Your task to perform on an android device: toggle improve location accuracy Image 0: 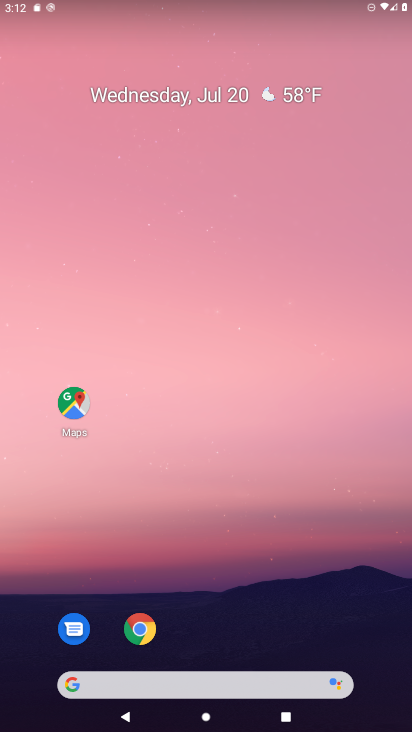
Step 0: drag from (203, 587) to (269, 8)
Your task to perform on an android device: toggle improve location accuracy Image 1: 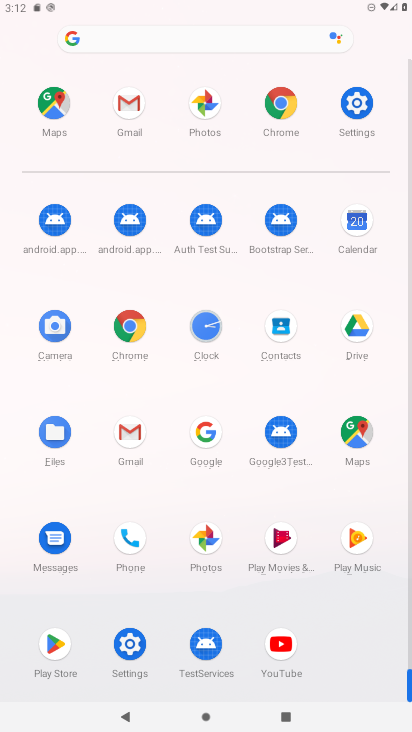
Step 1: click (121, 638)
Your task to perform on an android device: toggle improve location accuracy Image 2: 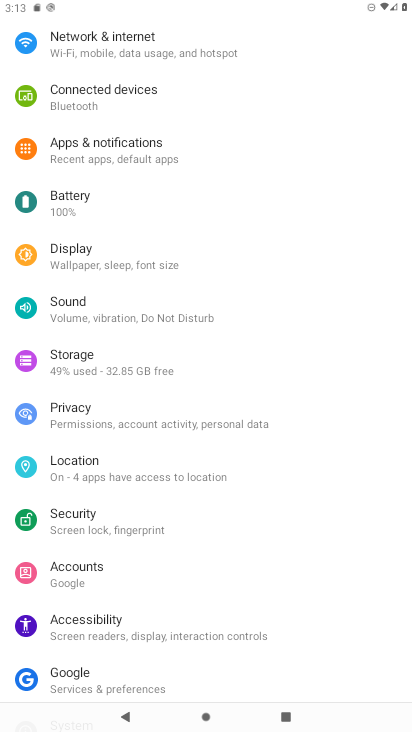
Step 2: click (106, 456)
Your task to perform on an android device: toggle improve location accuracy Image 3: 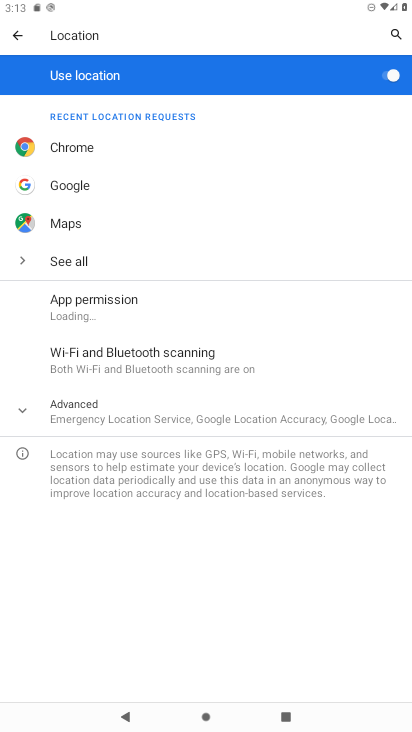
Step 3: click (87, 412)
Your task to perform on an android device: toggle improve location accuracy Image 4: 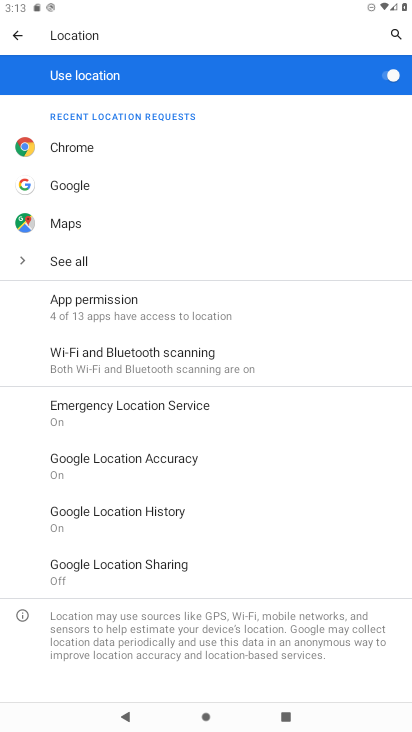
Step 4: click (169, 456)
Your task to perform on an android device: toggle improve location accuracy Image 5: 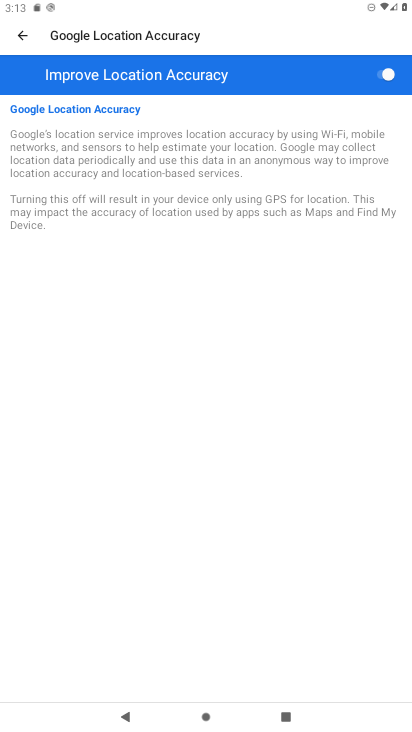
Step 5: click (312, 72)
Your task to perform on an android device: toggle improve location accuracy Image 6: 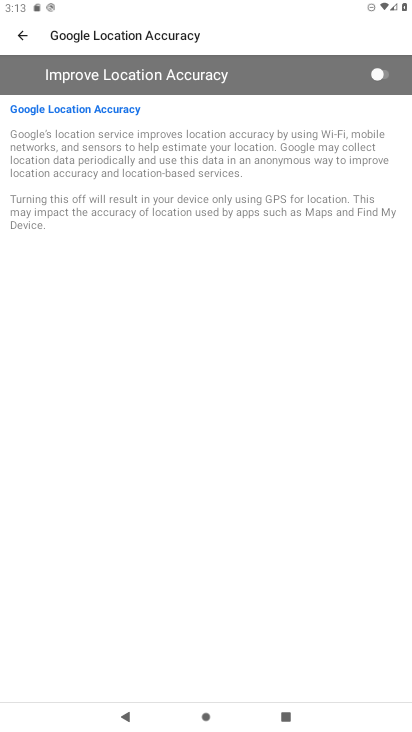
Step 6: task complete